Your task to perform on an android device: Do I have any events today? Image 0: 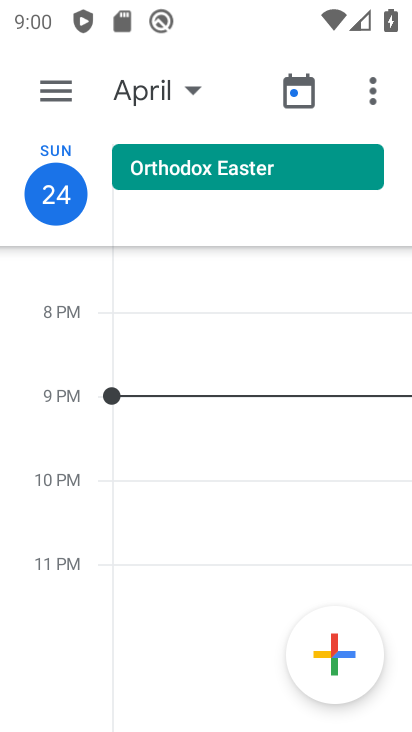
Step 0: click (155, 81)
Your task to perform on an android device: Do I have any events today? Image 1: 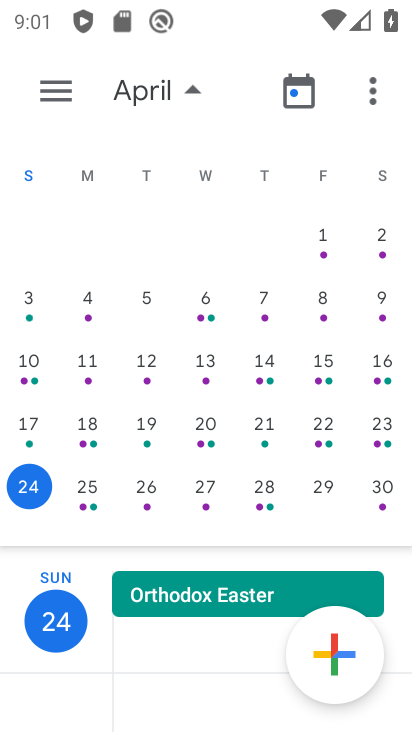
Step 1: click (31, 493)
Your task to perform on an android device: Do I have any events today? Image 2: 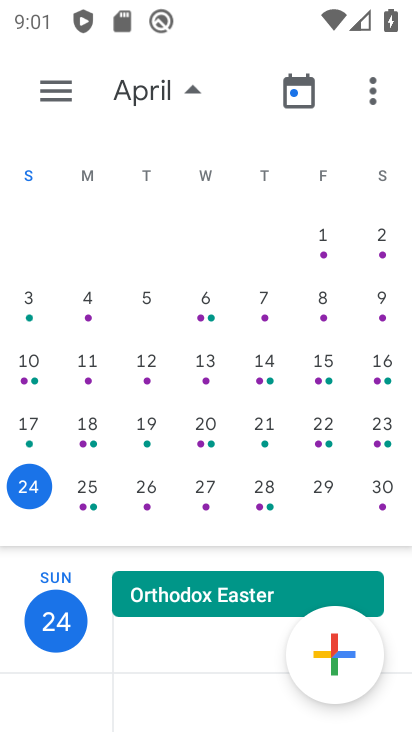
Step 2: click (173, 634)
Your task to perform on an android device: Do I have any events today? Image 3: 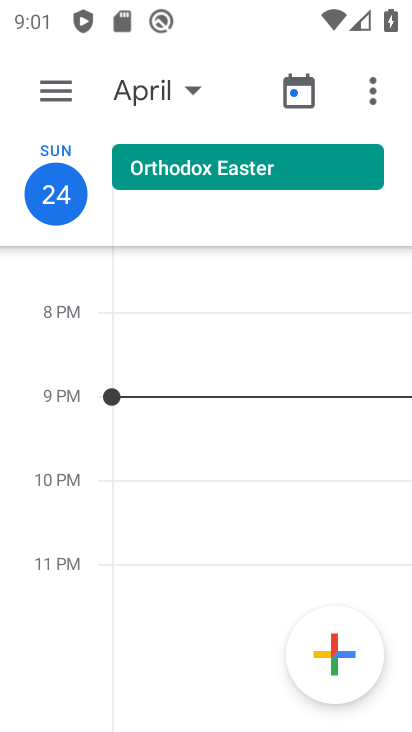
Step 3: task complete